Your task to perform on an android device: turn off improve location accuracy Image 0: 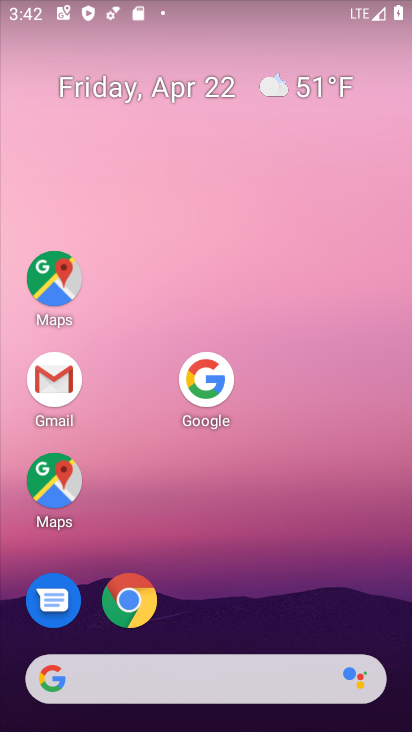
Step 0: drag from (295, 629) to (187, 99)
Your task to perform on an android device: turn off improve location accuracy Image 1: 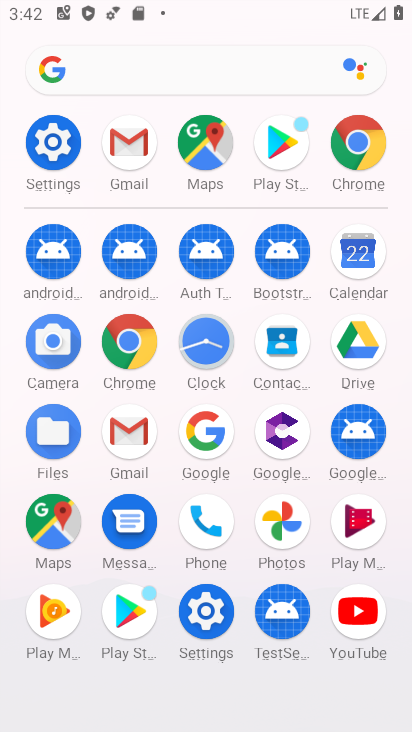
Step 1: click (55, 144)
Your task to perform on an android device: turn off improve location accuracy Image 2: 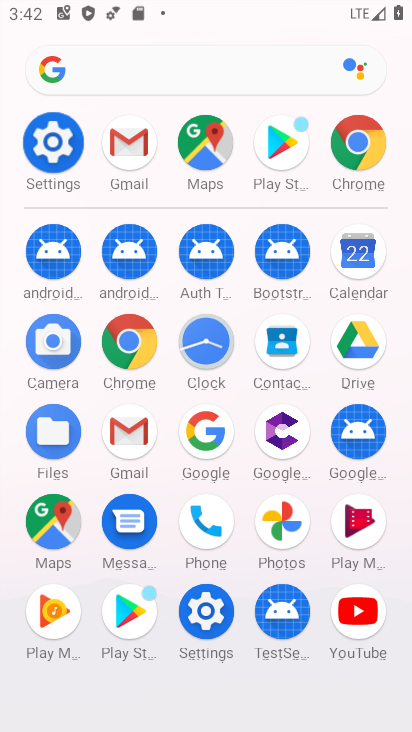
Step 2: click (55, 144)
Your task to perform on an android device: turn off improve location accuracy Image 3: 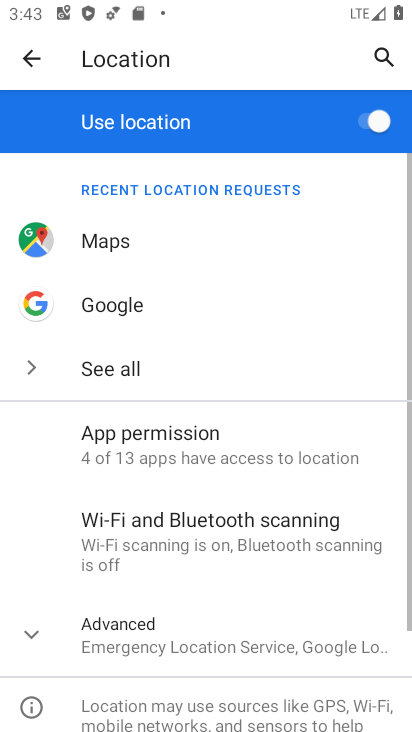
Step 3: click (144, 632)
Your task to perform on an android device: turn off improve location accuracy Image 4: 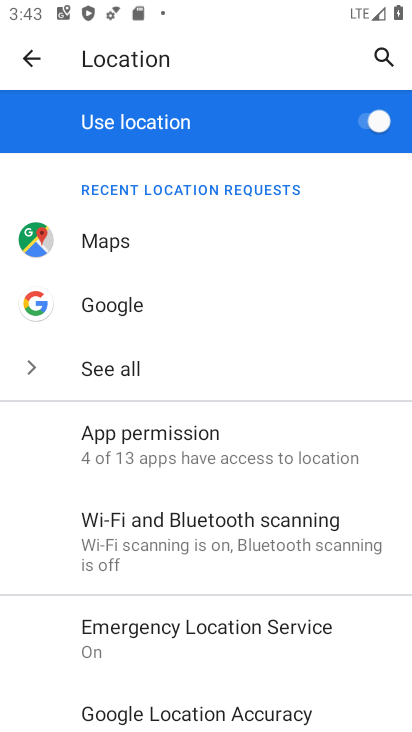
Step 4: drag from (210, 670) to (200, 303)
Your task to perform on an android device: turn off improve location accuracy Image 5: 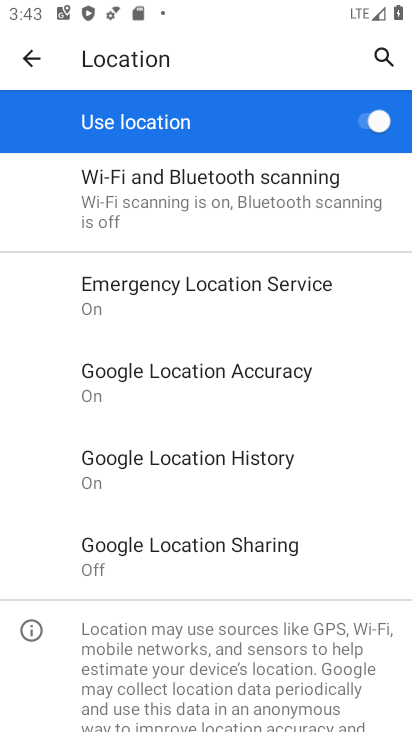
Step 5: click (109, 382)
Your task to perform on an android device: turn off improve location accuracy Image 6: 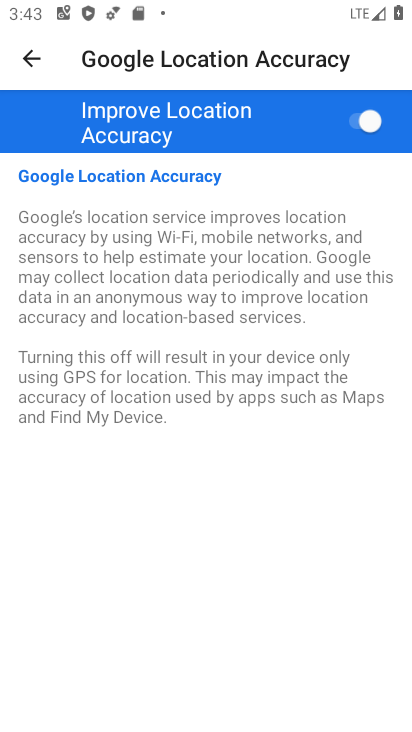
Step 6: click (356, 121)
Your task to perform on an android device: turn off improve location accuracy Image 7: 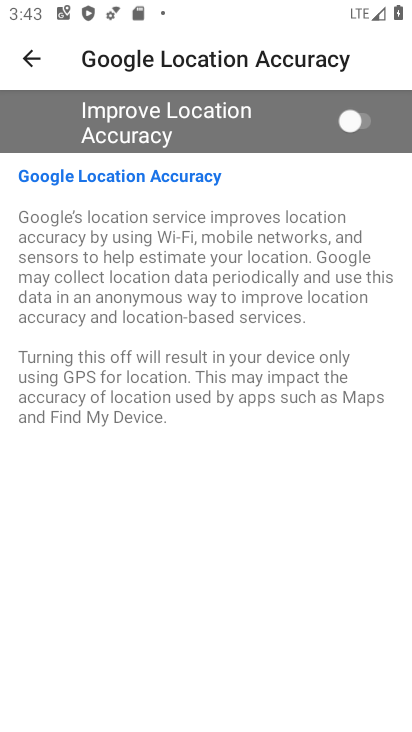
Step 7: task complete